Your task to perform on an android device: toggle wifi Image 0: 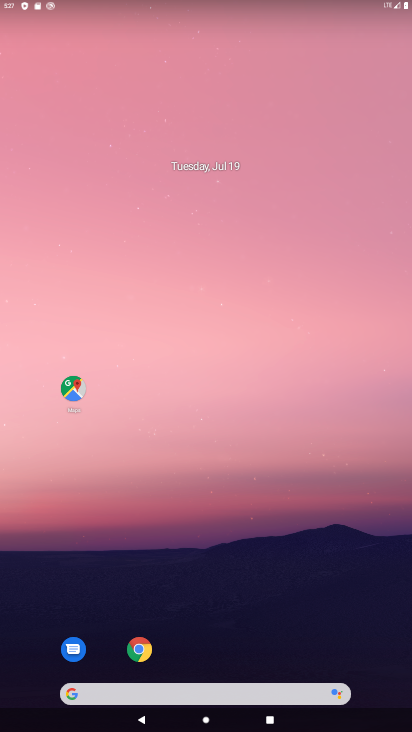
Step 0: drag from (293, 479) to (307, 73)
Your task to perform on an android device: toggle wifi Image 1: 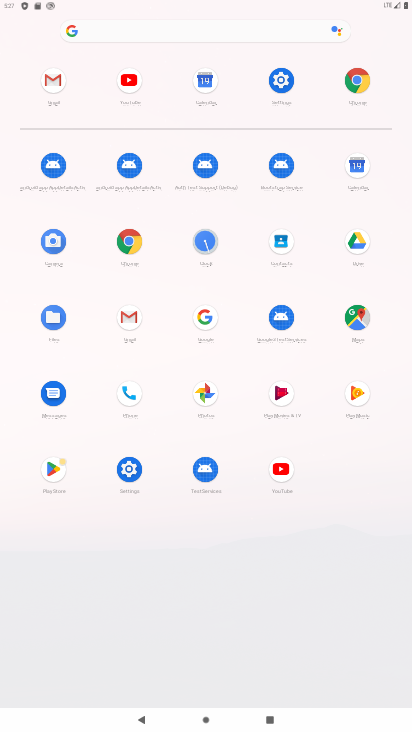
Step 1: click (282, 79)
Your task to perform on an android device: toggle wifi Image 2: 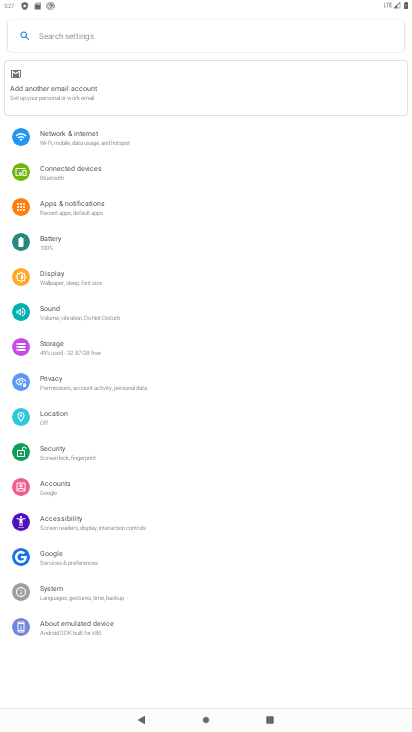
Step 2: click (124, 136)
Your task to perform on an android device: toggle wifi Image 3: 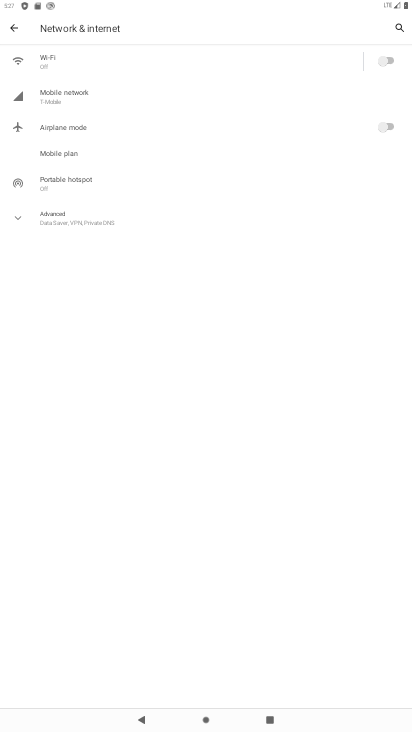
Step 3: click (136, 61)
Your task to perform on an android device: toggle wifi Image 4: 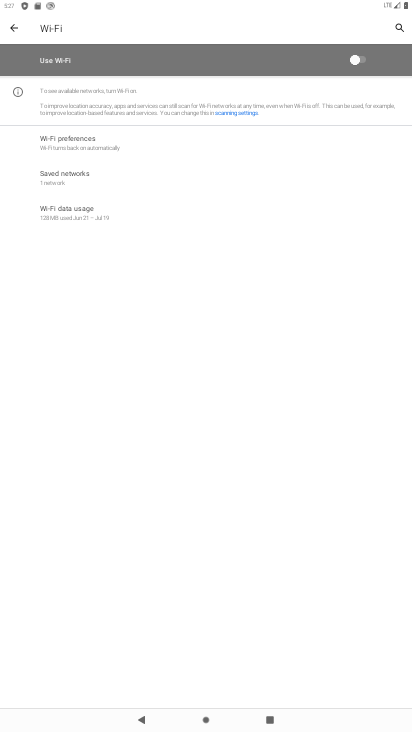
Step 4: click (379, 60)
Your task to perform on an android device: toggle wifi Image 5: 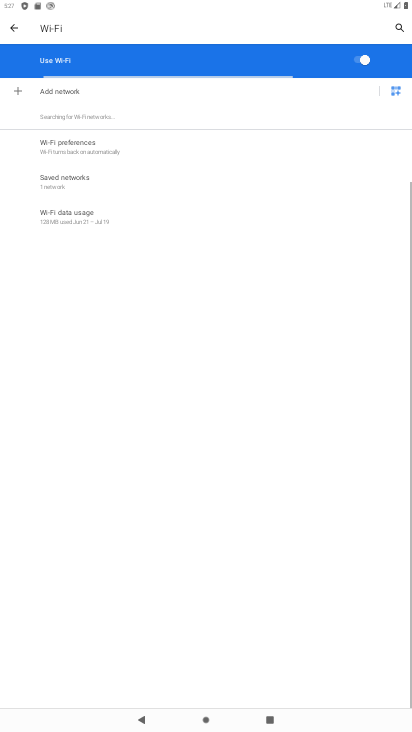
Step 5: task complete